Your task to perform on an android device: turn off data saver in the chrome app Image 0: 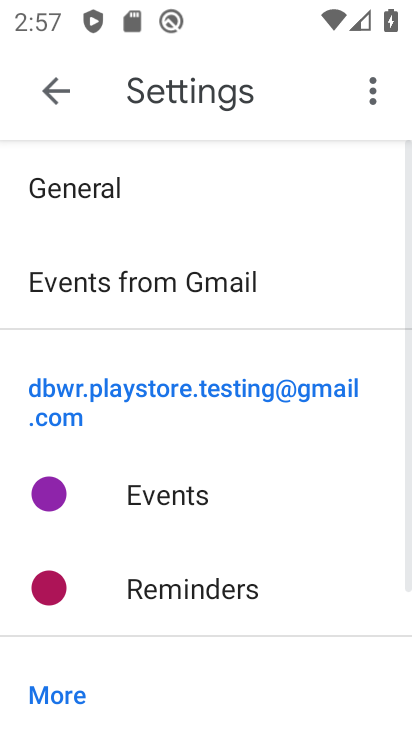
Step 0: press home button
Your task to perform on an android device: turn off data saver in the chrome app Image 1: 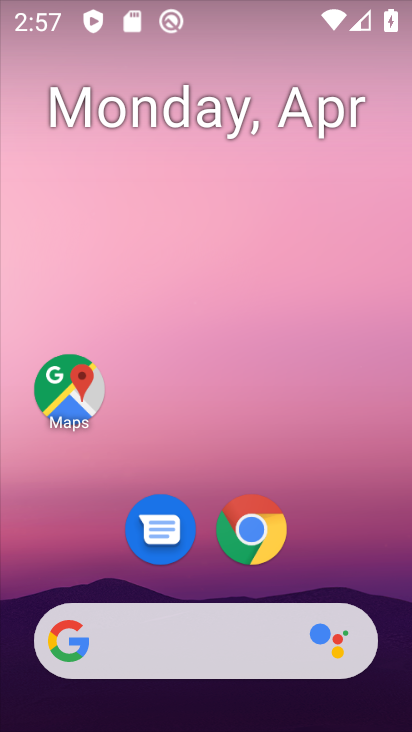
Step 1: drag from (305, 680) to (311, 121)
Your task to perform on an android device: turn off data saver in the chrome app Image 2: 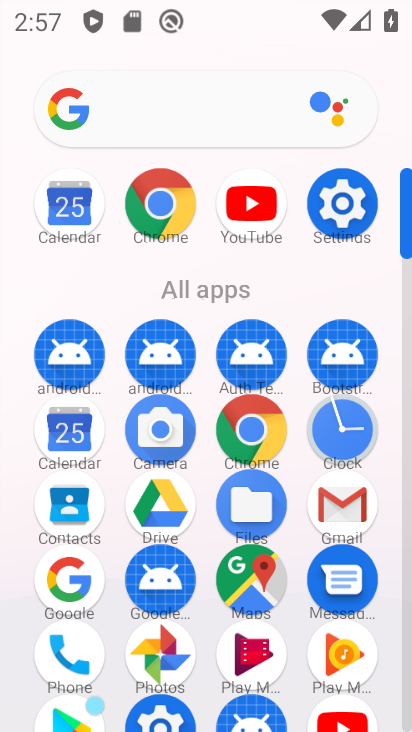
Step 2: click (174, 215)
Your task to perform on an android device: turn off data saver in the chrome app Image 3: 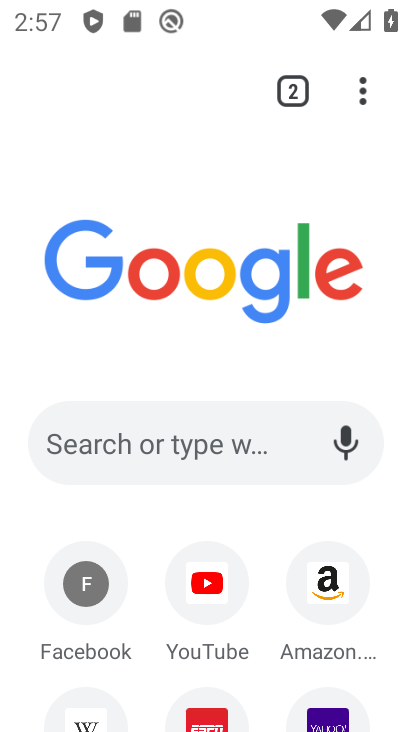
Step 3: click (363, 114)
Your task to perform on an android device: turn off data saver in the chrome app Image 4: 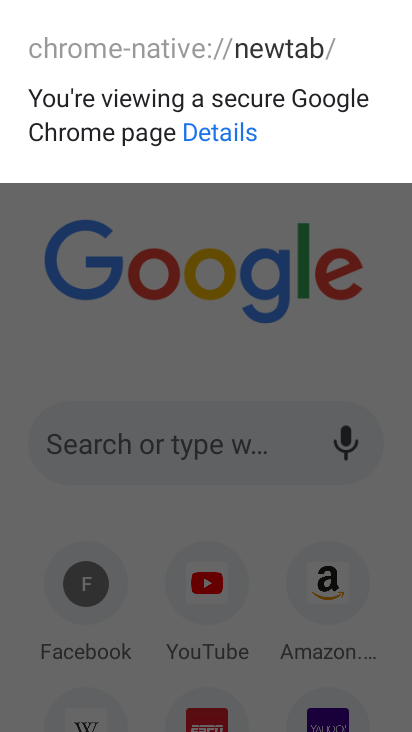
Step 4: click (378, 279)
Your task to perform on an android device: turn off data saver in the chrome app Image 5: 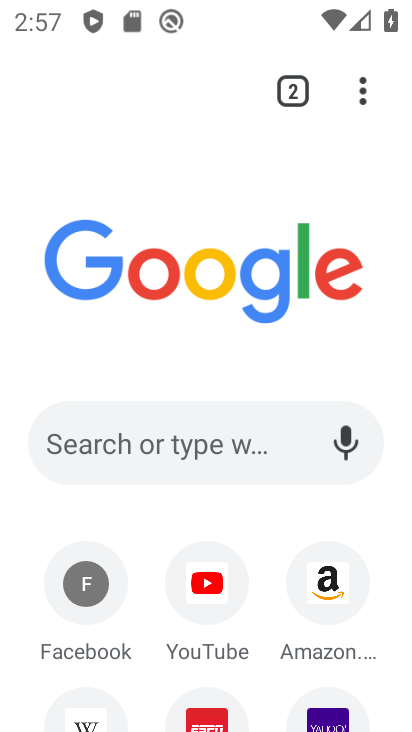
Step 5: click (359, 94)
Your task to perform on an android device: turn off data saver in the chrome app Image 6: 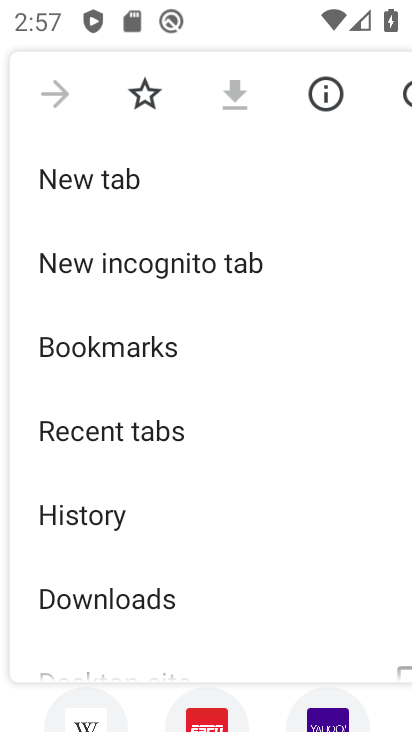
Step 6: drag from (218, 529) to (264, 232)
Your task to perform on an android device: turn off data saver in the chrome app Image 7: 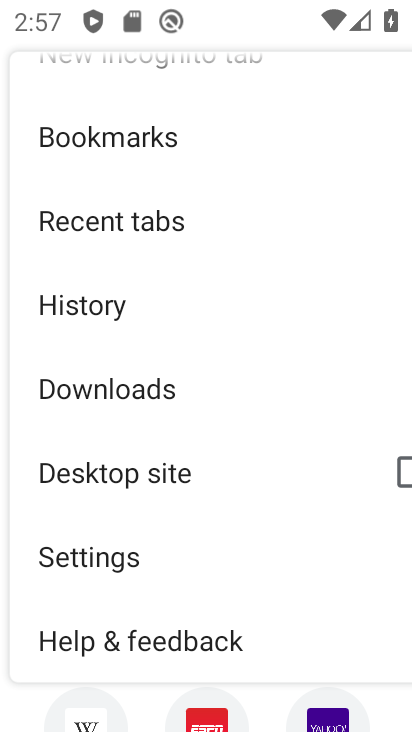
Step 7: click (95, 555)
Your task to perform on an android device: turn off data saver in the chrome app Image 8: 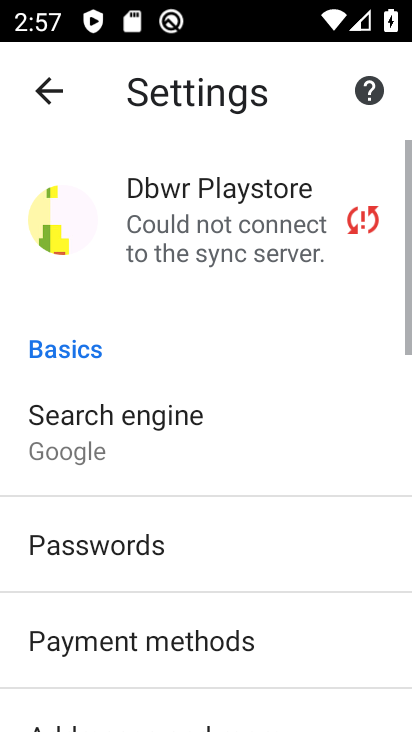
Step 8: drag from (150, 543) to (235, 252)
Your task to perform on an android device: turn off data saver in the chrome app Image 9: 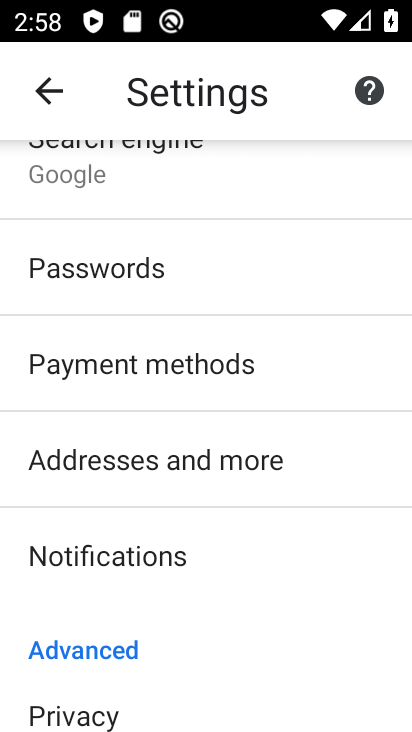
Step 9: drag from (164, 594) to (292, 246)
Your task to perform on an android device: turn off data saver in the chrome app Image 10: 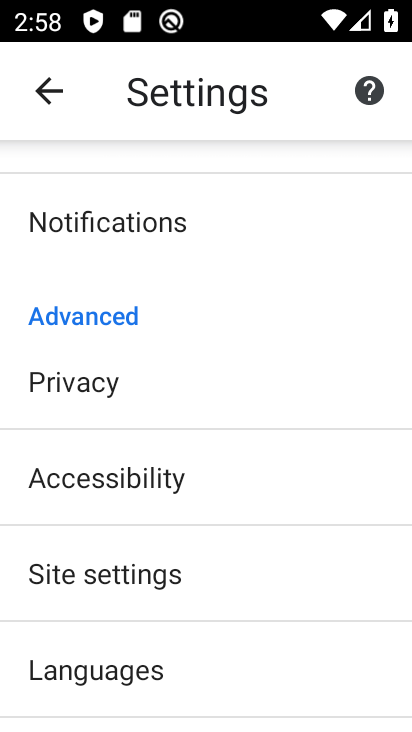
Step 10: drag from (152, 599) to (249, 281)
Your task to perform on an android device: turn off data saver in the chrome app Image 11: 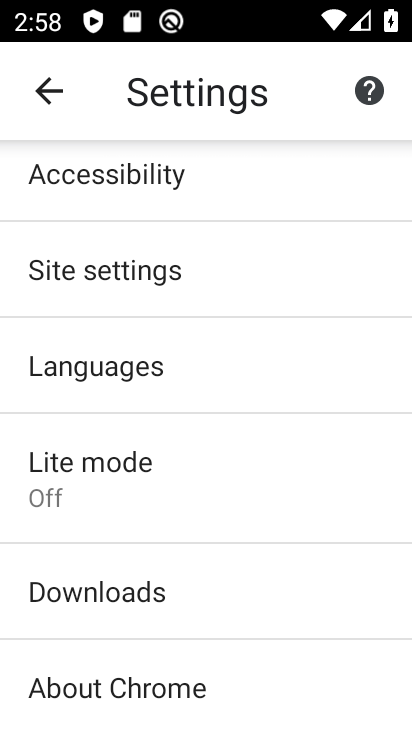
Step 11: click (91, 459)
Your task to perform on an android device: turn off data saver in the chrome app Image 12: 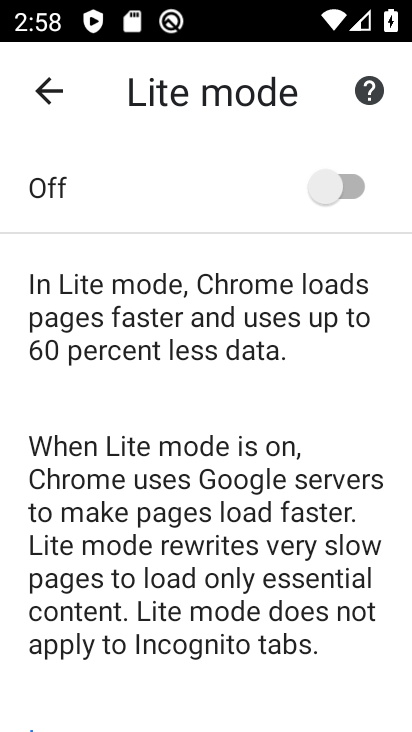
Step 12: click (324, 221)
Your task to perform on an android device: turn off data saver in the chrome app Image 13: 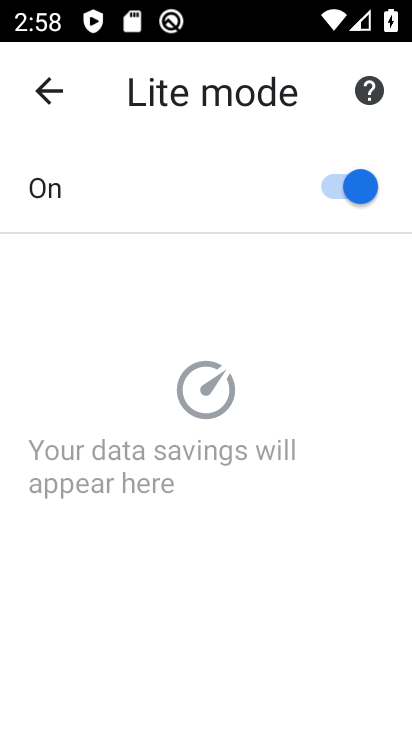
Step 13: click (329, 212)
Your task to perform on an android device: turn off data saver in the chrome app Image 14: 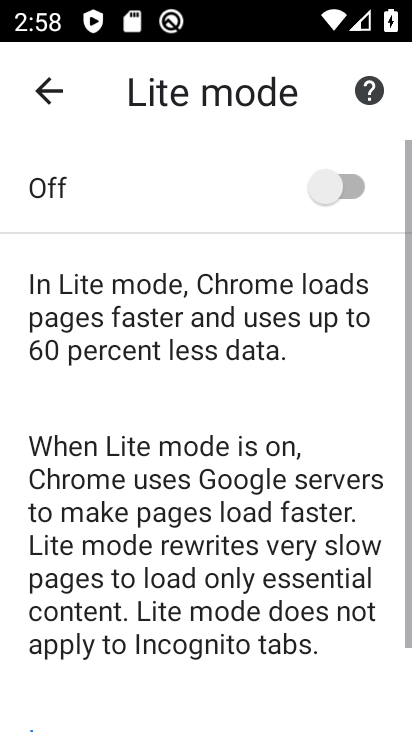
Step 14: task complete